Your task to perform on an android device: turn on data saver in the chrome app Image 0: 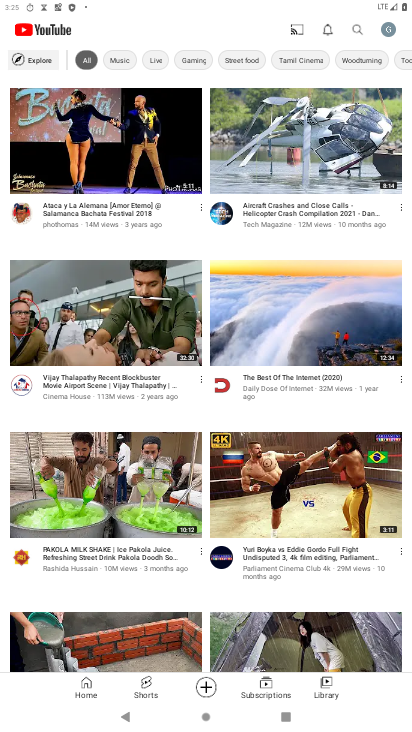
Step 0: press home button
Your task to perform on an android device: turn on data saver in the chrome app Image 1: 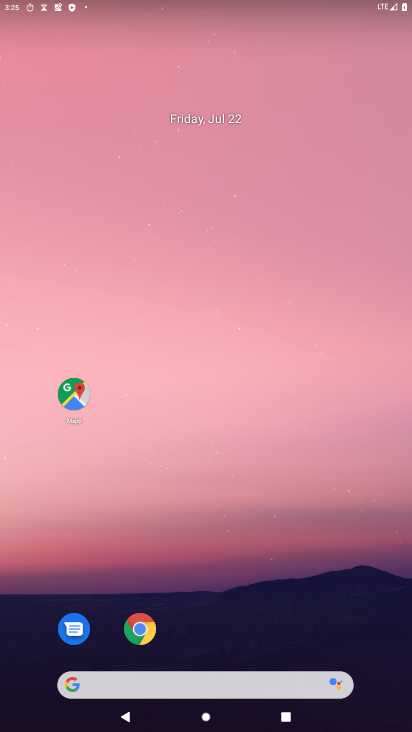
Step 1: drag from (287, 674) to (280, 37)
Your task to perform on an android device: turn on data saver in the chrome app Image 2: 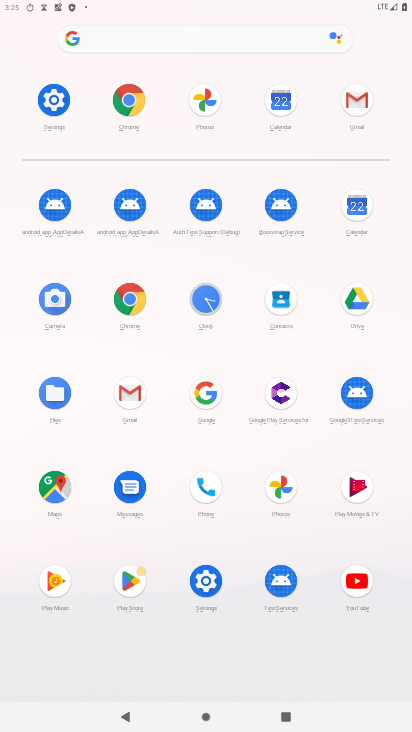
Step 2: click (138, 299)
Your task to perform on an android device: turn on data saver in the chrome app Image 3: 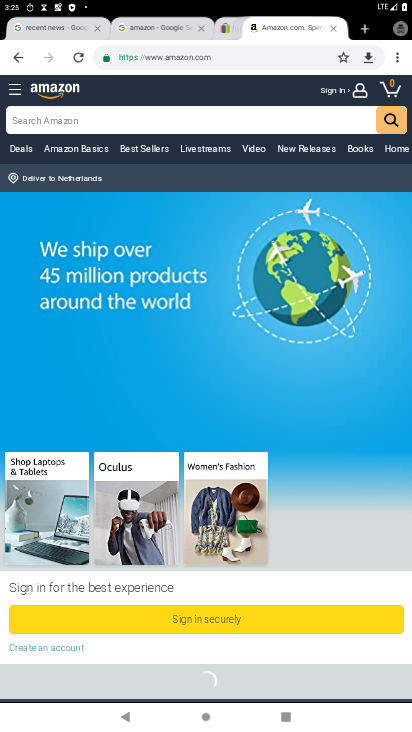
Step 3: click (393, 55)
Your task to perform on an android device: turn on data saver in the chrome app Image 4: 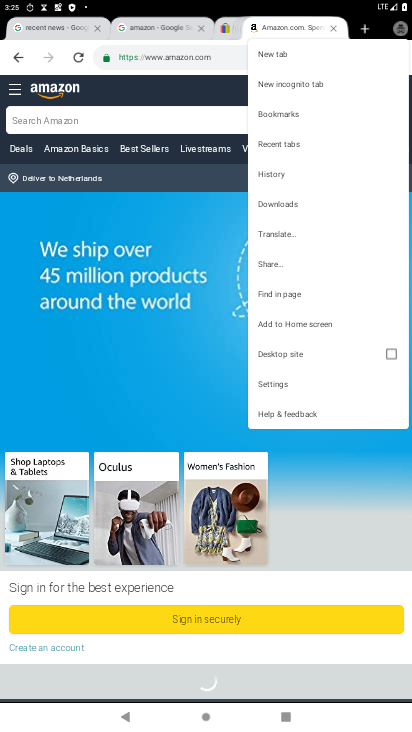
Step 4: click (310, 385)
Your task to perform on an android device: turn on data saver in the chrome app Image 5: 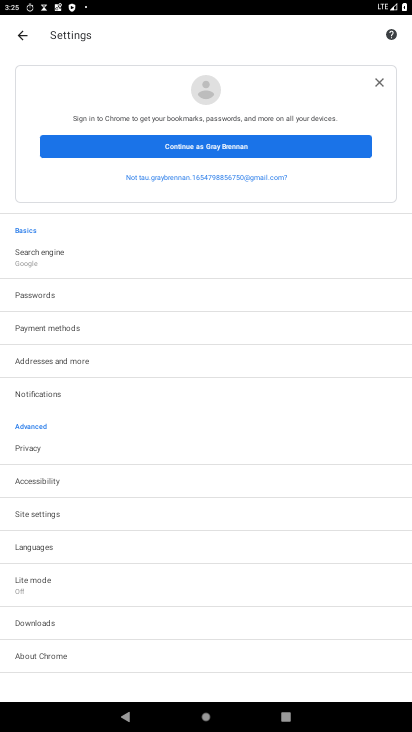
Step 5: click (55, 579)
Your task to perform on an android device: turn on data saver in the chrome app Image 6: 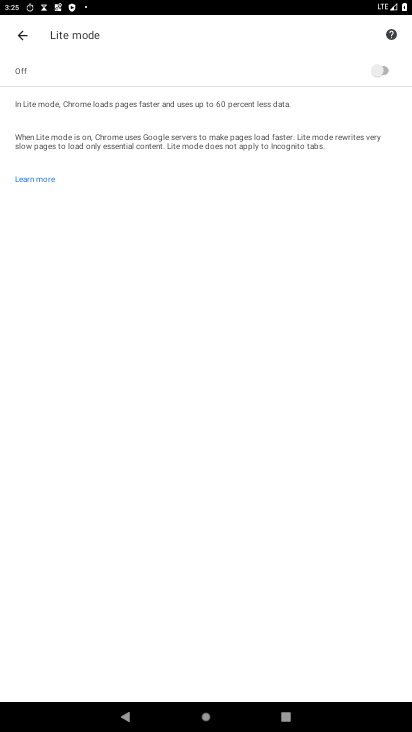
Step 6: click (386, 71)
Your task to perform on an android device: turn on data saver in the chrome app Image 7: 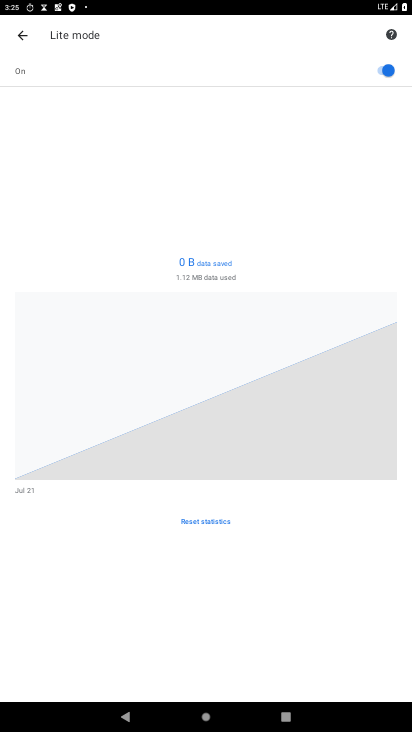
Step 7: task complete